Your task to perform on an android device: Show me the alarms in the clock app Image 0: 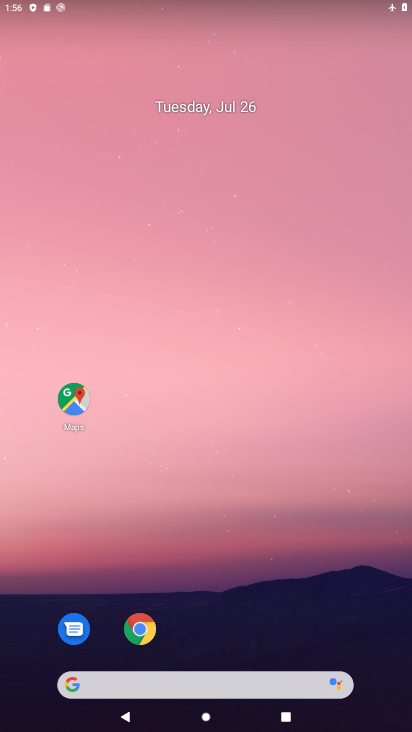
Step 0: drag from (240, 674) to (232, 26)
Your task to perform on an android device: Show me the alarms in the clock app Image 1: 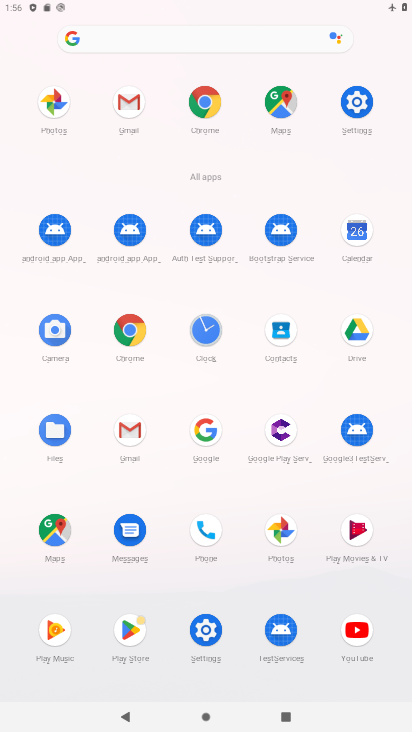
Step 1: click (201, 665)
Your task to perform on an android device: Show me the alarms in the clock app Image 2: 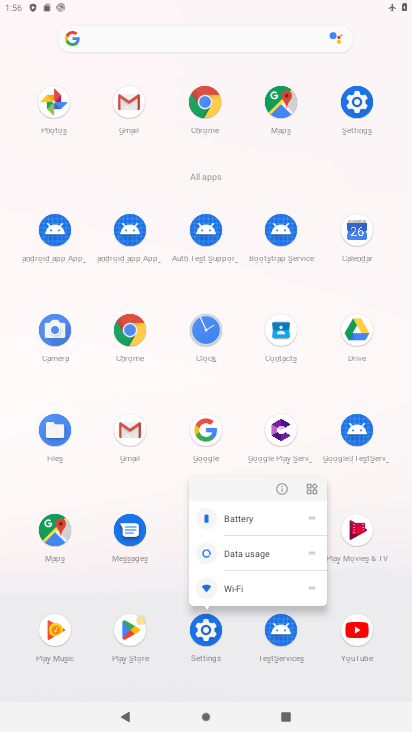
Step 2: click (202, 337)
Your task to perform on an android device: Show me the alarms in the clock app Image 3: 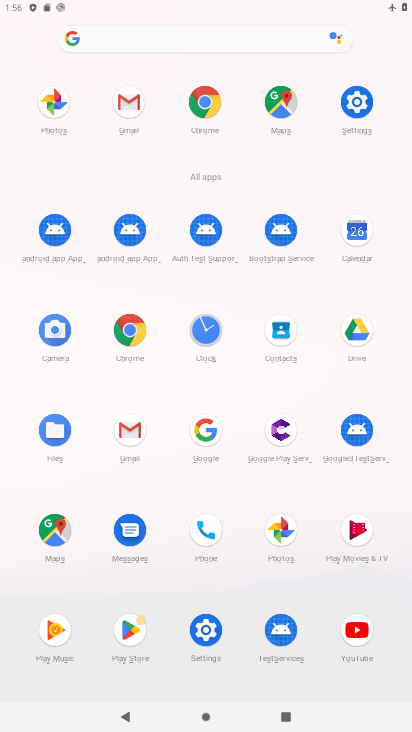
Step 3: click (202, 337)
Your task to perform on an android device: Show me the alarms in the clock app Image 4: 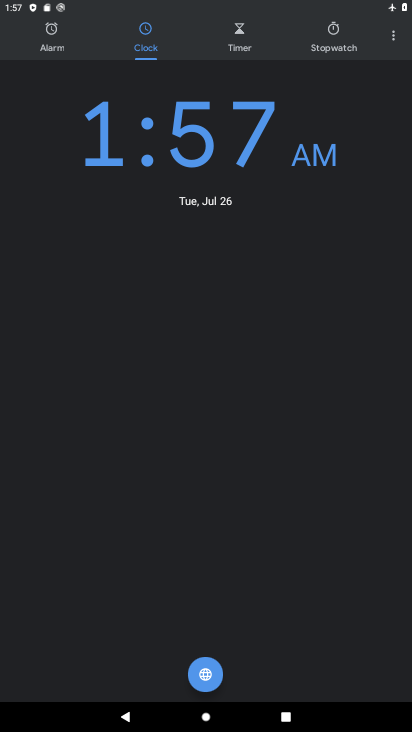
Step 4: click (59, 38)
Your task to perform on an android device: Show me the alarms in the clock app Image 5: 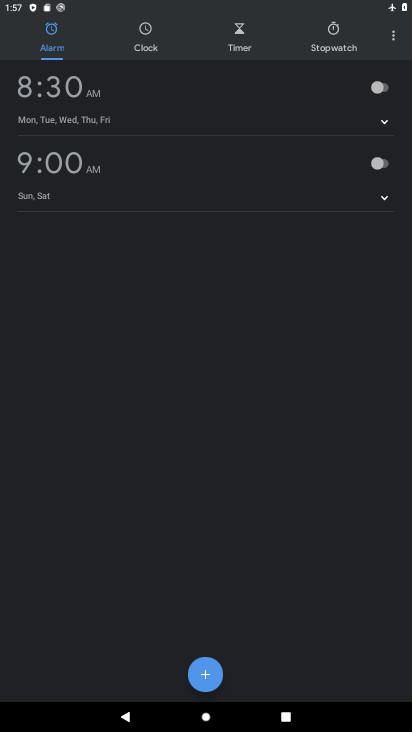
Step 5: task complete